Your task to perform on an android device: turn on location history Image 0: 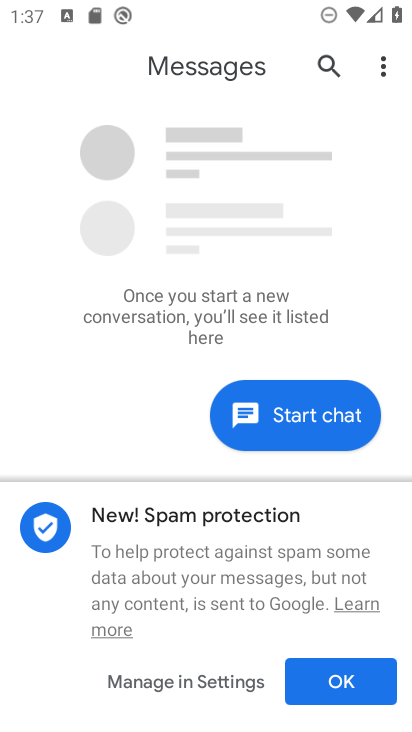
Step 0: press home button
Your task to perform on an android device: turn on location history Image 1: 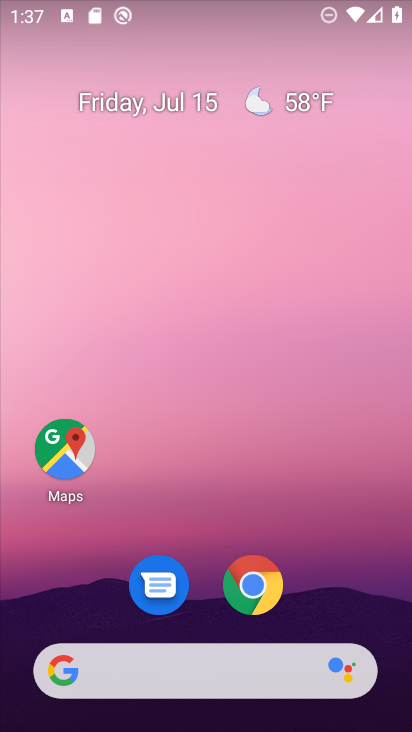
Step 1: drag from (315, 526) to (283, 41)
Your task to perform on an android device: turn on location history Image 2: 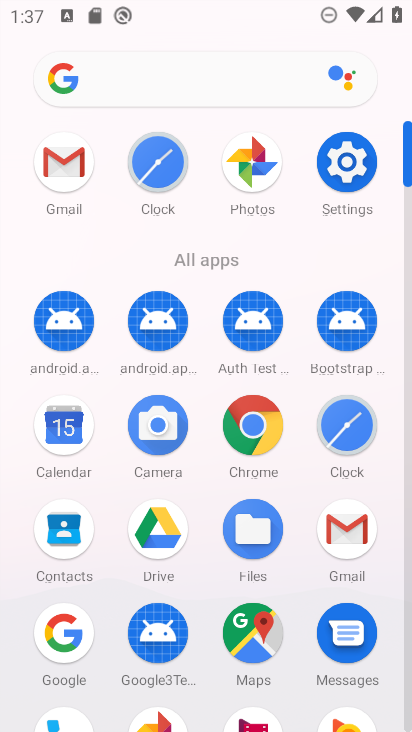
Step 2: click (358, 163)
Your task to perform on an android device: turn on location history Image 3: 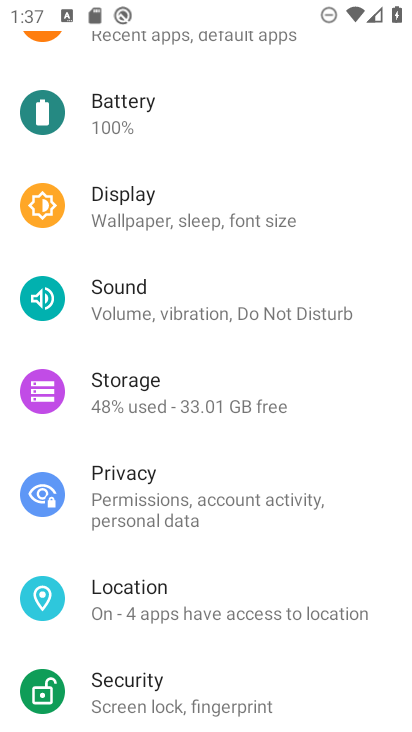
Step 3: click (211, 610)
Your task to perform on an android device: turn on location history Image 4: 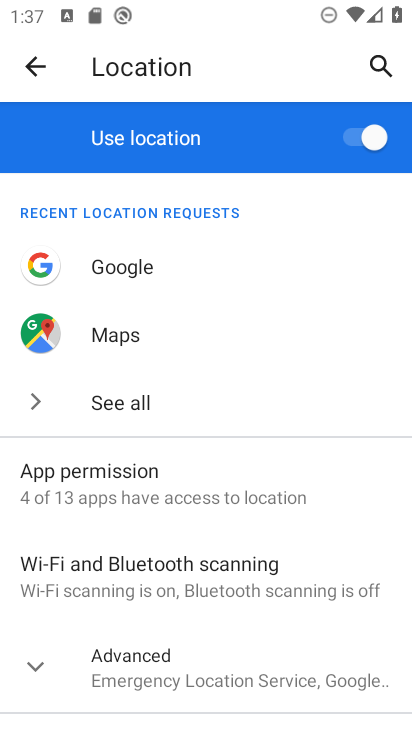
Step 4: click (41, 662)
Your task to perform on an android device: turn on location history Image 5: 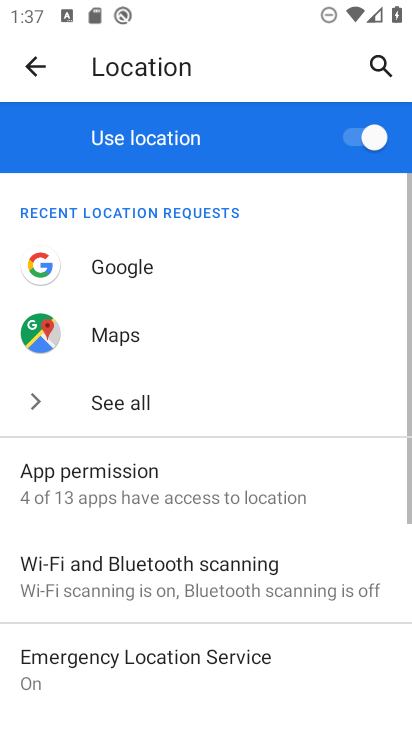
Step 5: drag from (272, 537) to (277, 207)
Your task to perform on an android device: turn on location history Image 6: 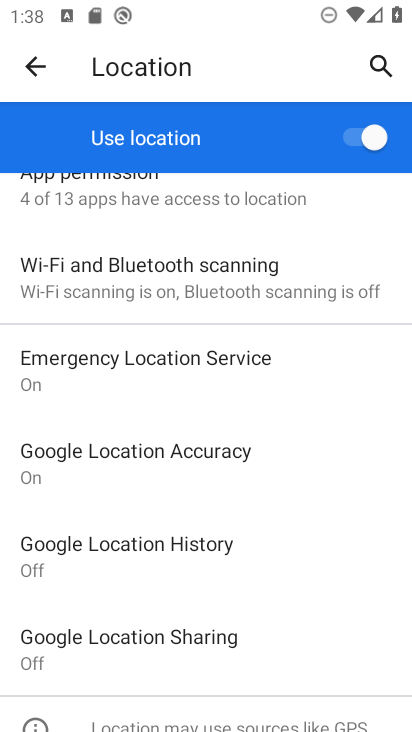
Step 6: click (180, 560)
Your task to perform on an android device: turn on location history Image 7: 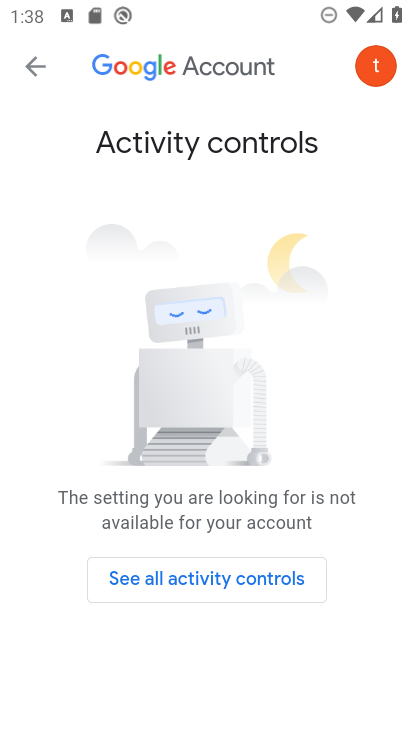
Step 7: click (281, 570)
Your task to perform on an android device: turn on location history Image 8: 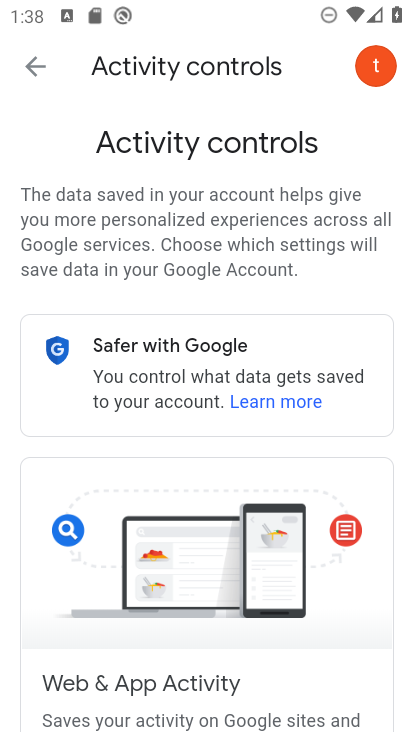
Step 8: task complete